Your task to perform on an android device: Is it going to rain this weekend? Image 0: 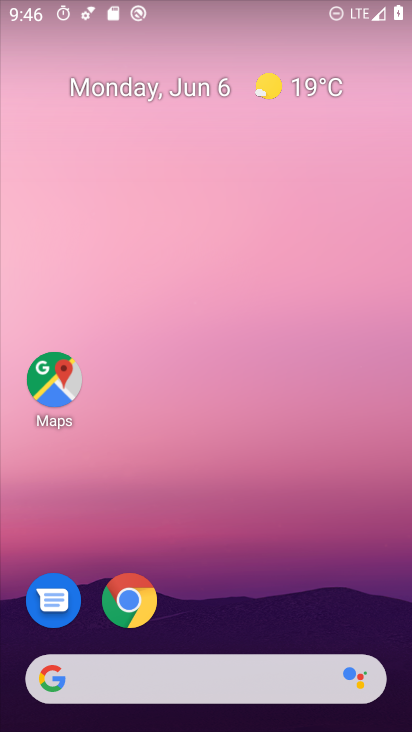
Step 0: drag from (295, 586) to (221, 17)
Your task to perform on an android device: Is it going to rain this weekend? Image 1: 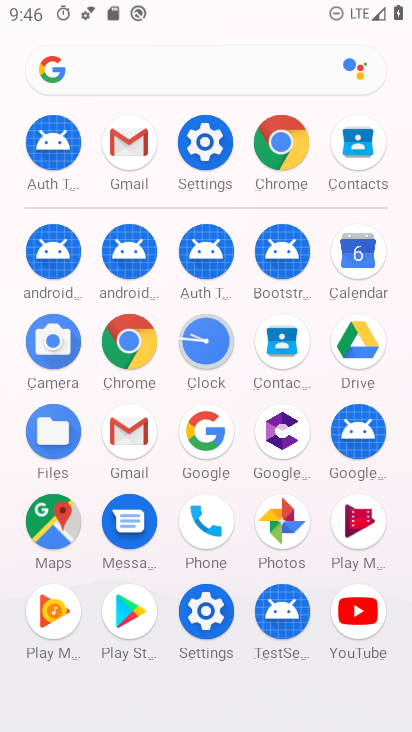
Step 1: click (196, 441)
Your task to perform on an android device: Is it going to rain this weekend? Image 2: 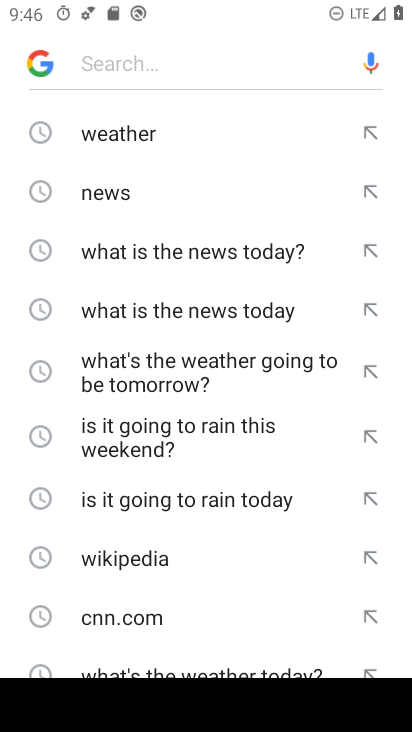
Step 2: click (166, 131)
Your task to perform on an android device: Is it going to rain this weekend? Image 3: 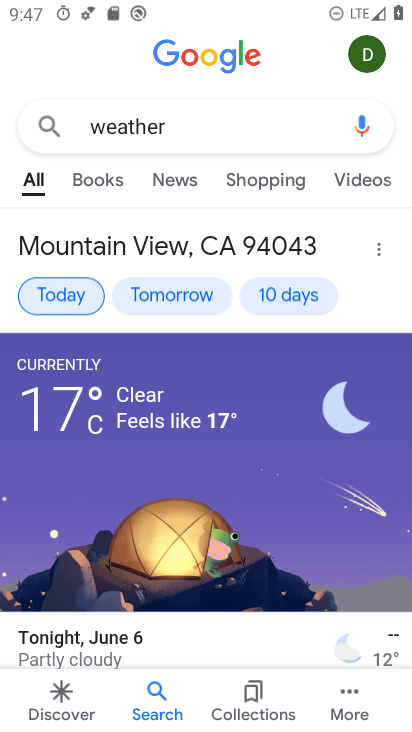
Step 3: click (289, 284)
Your task to perform on an android device: Is it going to rain this weekend? Image 4: 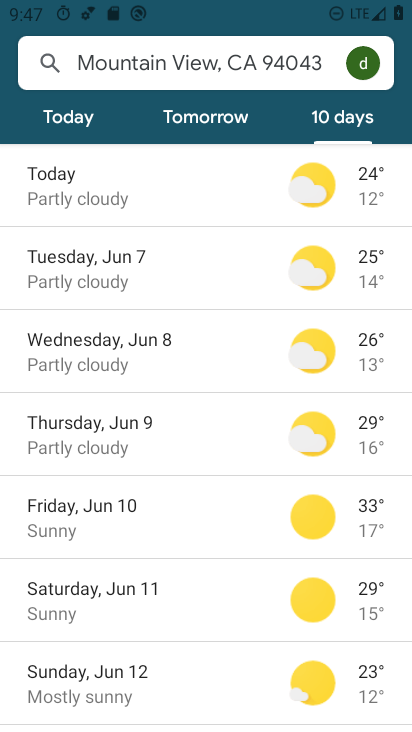
Step 4: task complete